Your task to perform on an android device: Go to CNN.com Image 0: 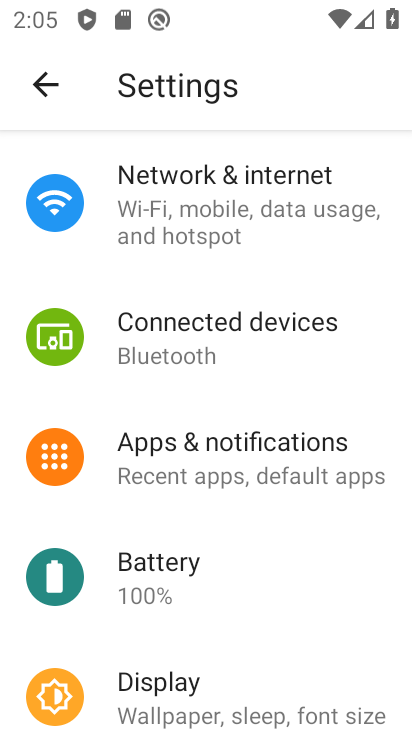
Step 0: press home button
Your task to perform on an android device: Go to CNN.com Image 1: 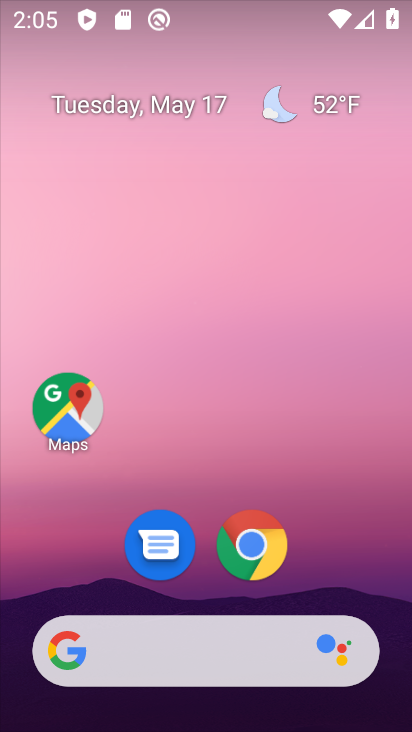
Step 1: drag from (354, 560) to (354, 94)
Your task to perform on an android device: Go to CNN.com Image 2: 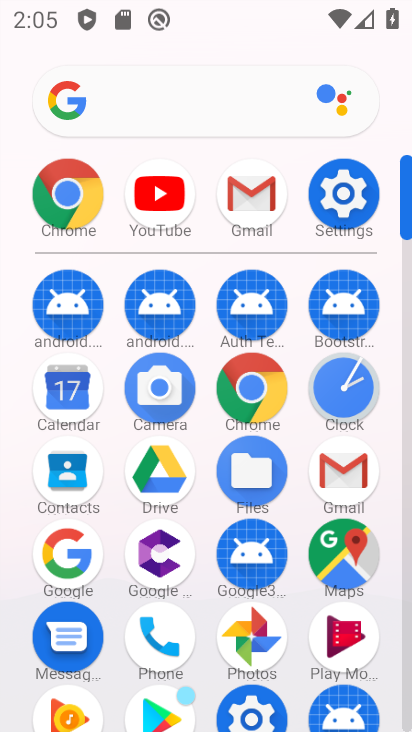
Step 2: click (269, 395)
Your task to perform on an android device: Go to CNN.com Image 3: 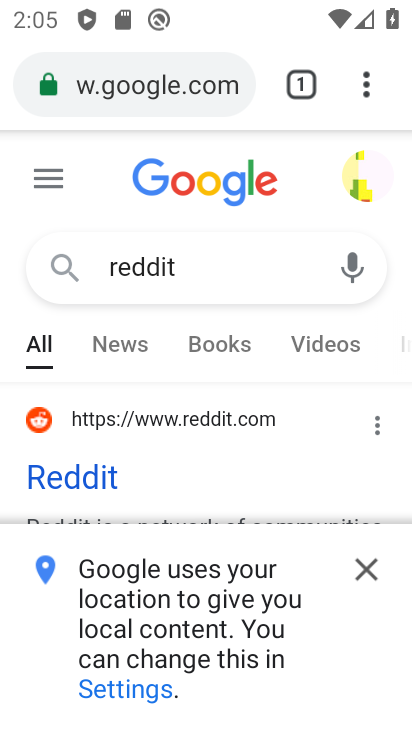
Step 3: click (218, 75)
Your task to perform on an android device: Go to CNN.com Image 4: 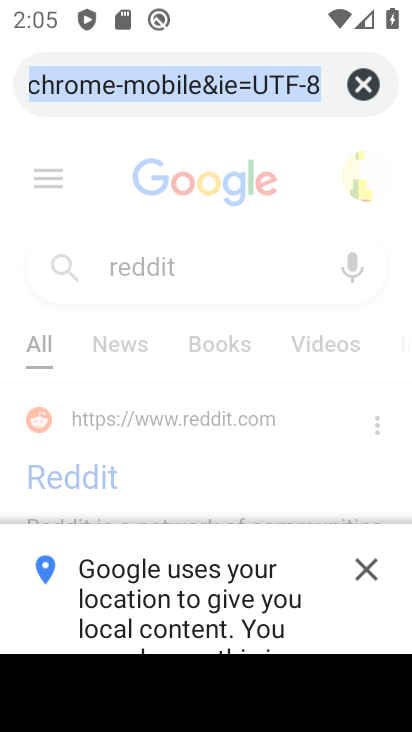
Step 4: click (349, 86)
Your task to perform on an android device: Go to CNN.com Image 5: 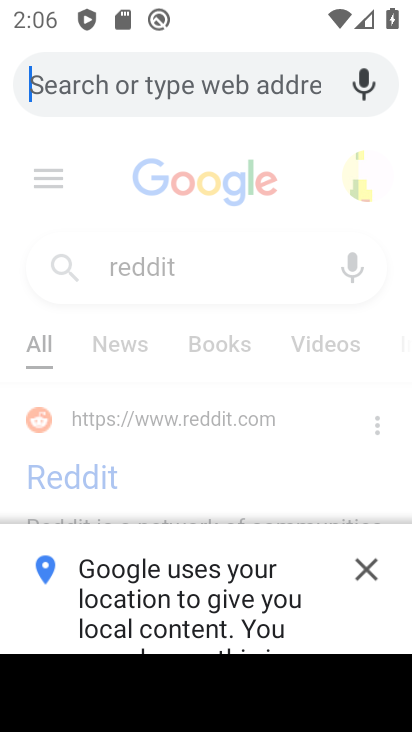
Step 5: type "cnn.com"
Your task to perform on an android device: Go to CNN.com Image 6: 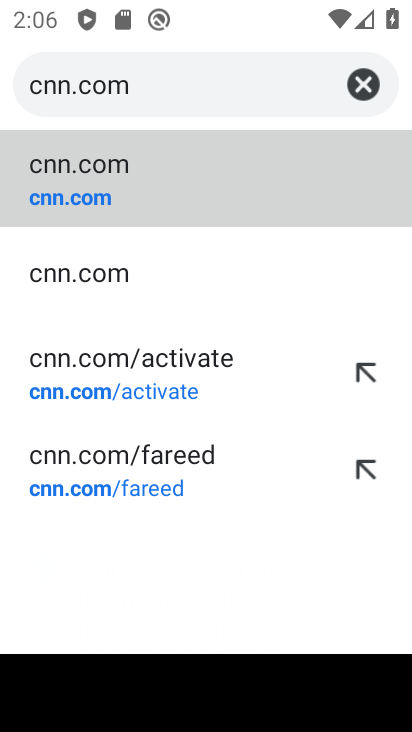
Step 6: click (130, 188)
Your task to perform on an android device: Go to CNN.com Image 7: 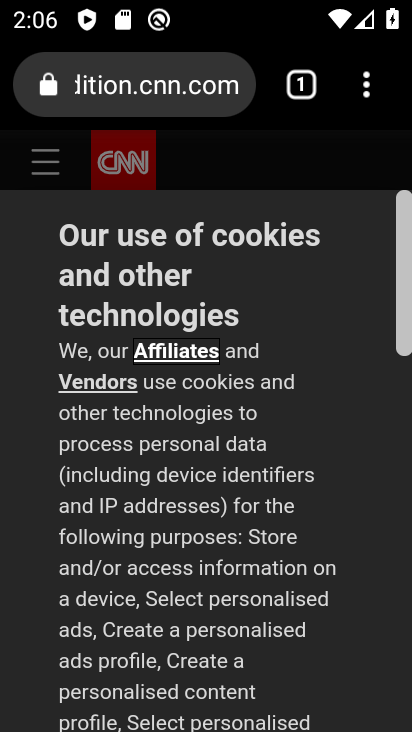
Step 7: task complete